Your task to perform on an android device: Open Yahoo.com Image 0: 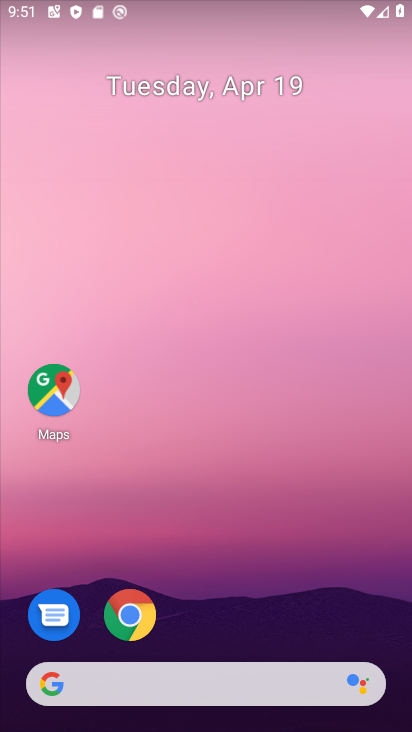
Step 0: drag from (231, 581) to (305, 34)
Your task to perform on an android device: Open Yahoo.com Image 1: 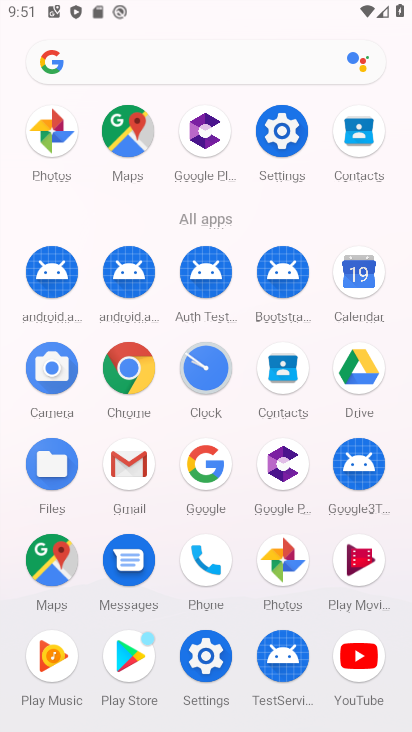
Step 1: drag from (237, 640) to (241, 189)
Your task to perform on an android device: Open Yahoo.com Image 2: 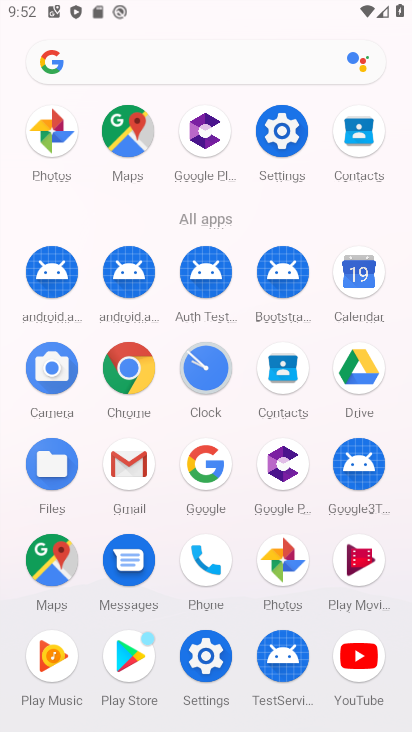
Step 2: click (129, 369)
Your task to perform on an android device: Open Yahoo.com Image 3: 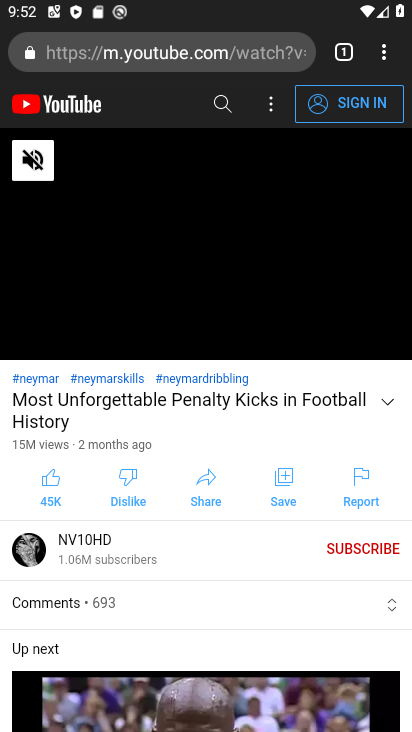
Step 3: click (160, 57)
Your task to perform on an android device: Open Yahoo.com Image 4: 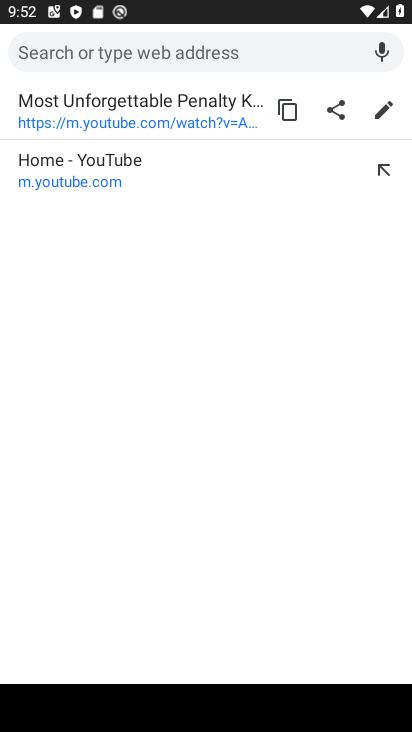
Step 4: type "yehoo.com"
Your task to perform on an android device: Open Yahoo.com Image 5: 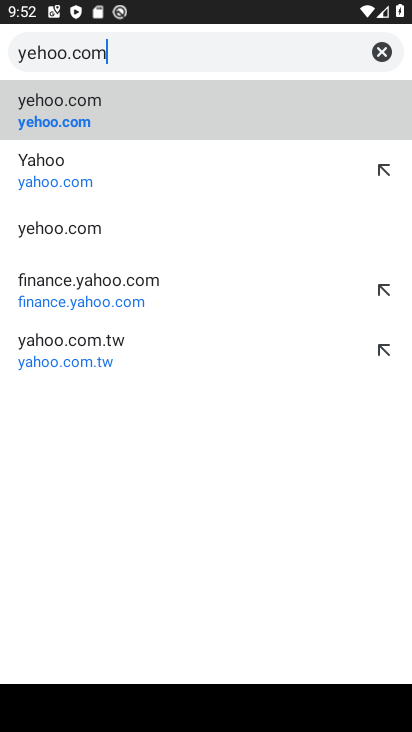
Step 5: click (70, 108)
Your task to perform on an android device: Open Yahoo.com Image 6: 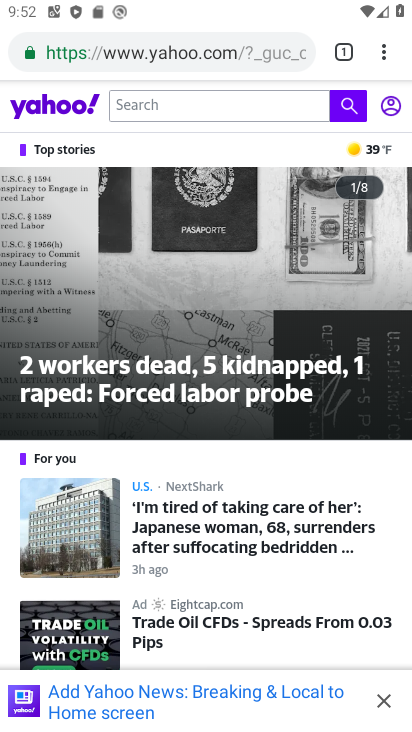
Step 6: task complete